Your task to perform on an android device: open app "Spotify" (install if not already installed) and go to login screen Image 0: 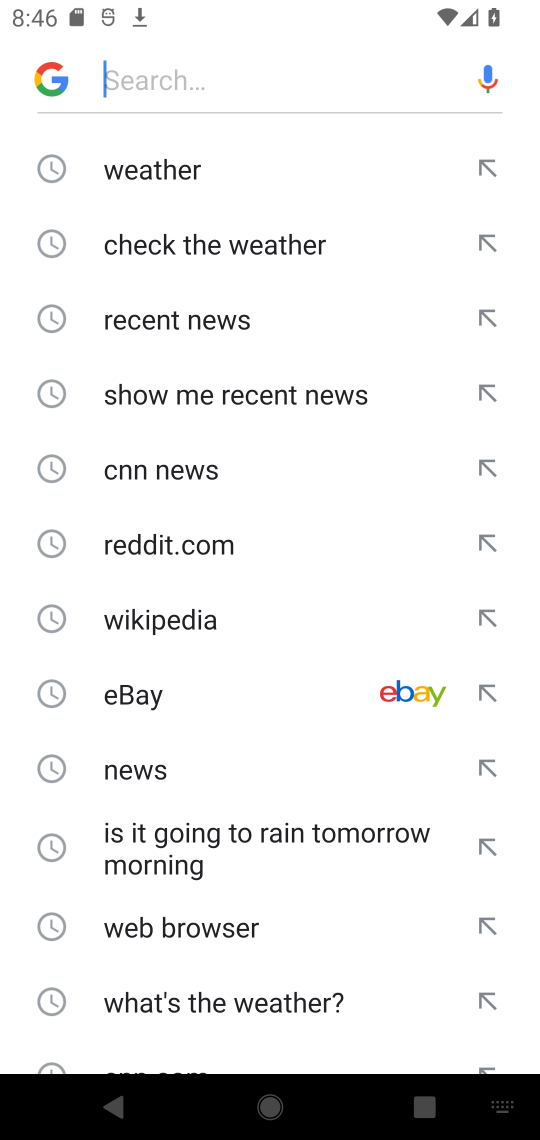
Step 0: press home button
Your task to perform on an android device: open app "Spotify" (install if not already installed) and go to login screen Image 1: 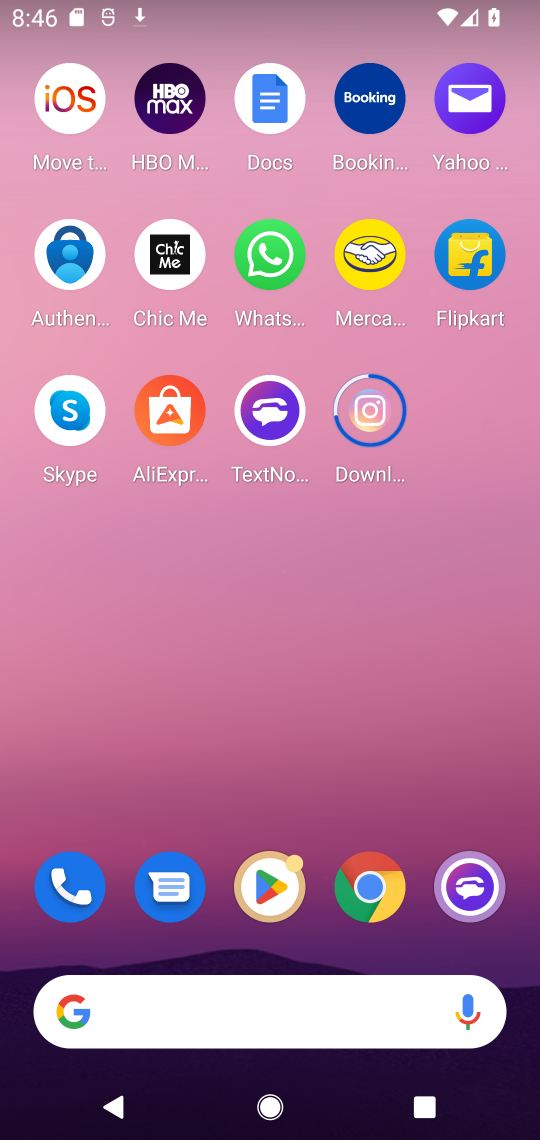
Step 1: drag from (312, 965) to (332, 53)
Your task to perform on an android device: open app "Spotify" (install if not already installed) and go to login screen Image 2: 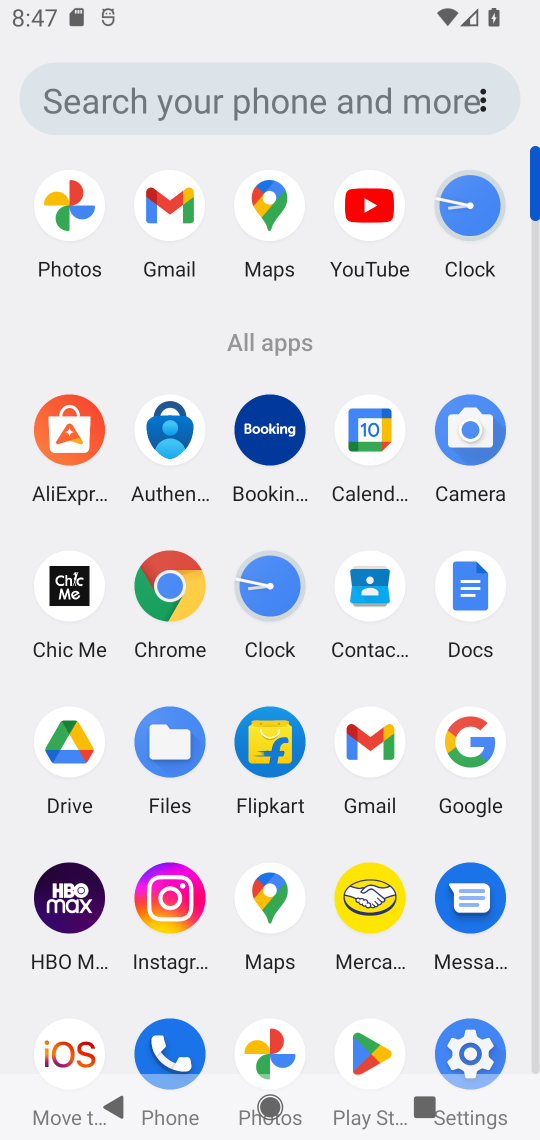
Step 2: click (347, 1057)
Your task to perform on an android device: open app "Spotify" (install if not already installed) and go to login screen Image 3: 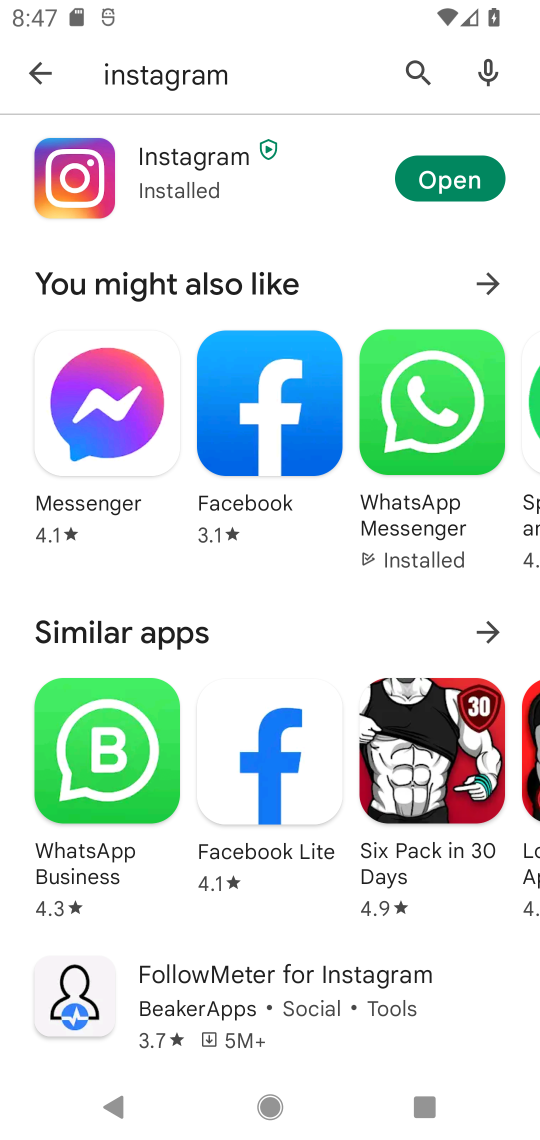
Step 3: click (404, 70)
Your task to perform on an android device: open app "Spotify" (install if not already installed) and go to login screen Image 4: 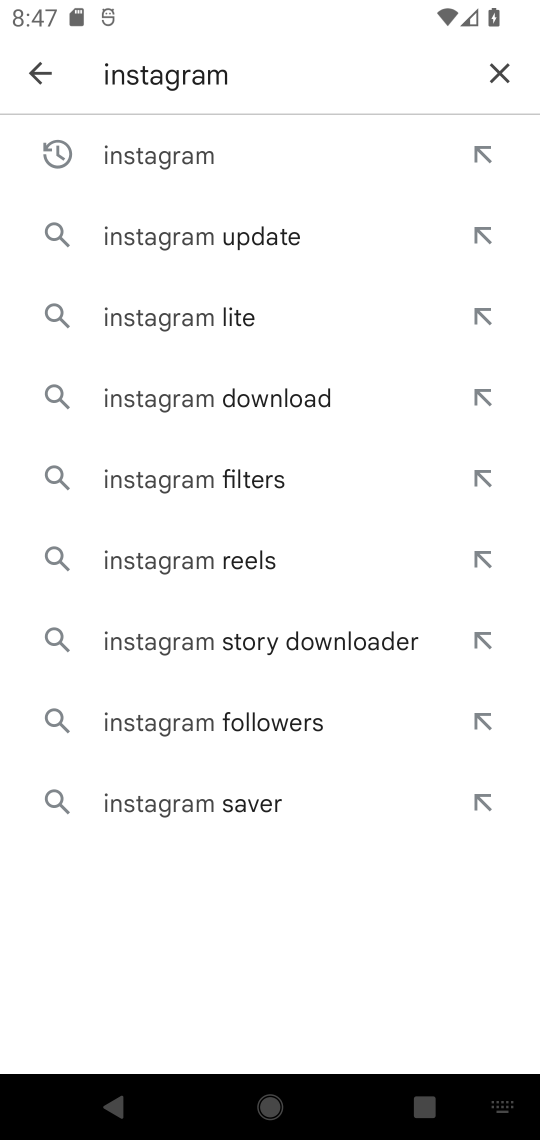
Step 4: click (513, 65)
Your task to perform on an android device: open app "Spotify" (install if not already installed) and go to login screen Image 5: 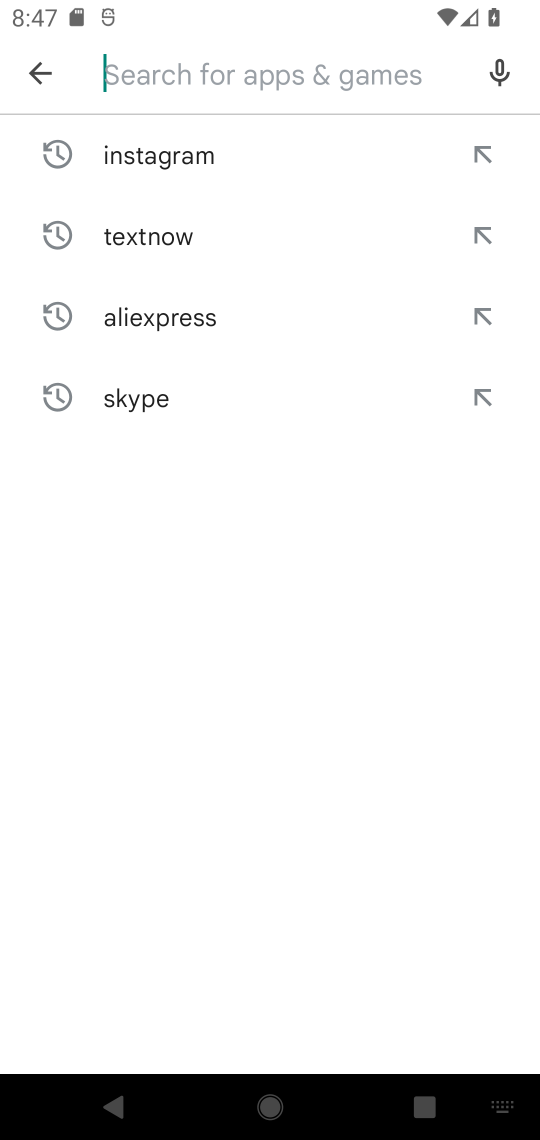
Step 5: type "spotify"
Your task to perform on an android device: open app "Spotify" (install if not already installed) and go to login screen Image 6: 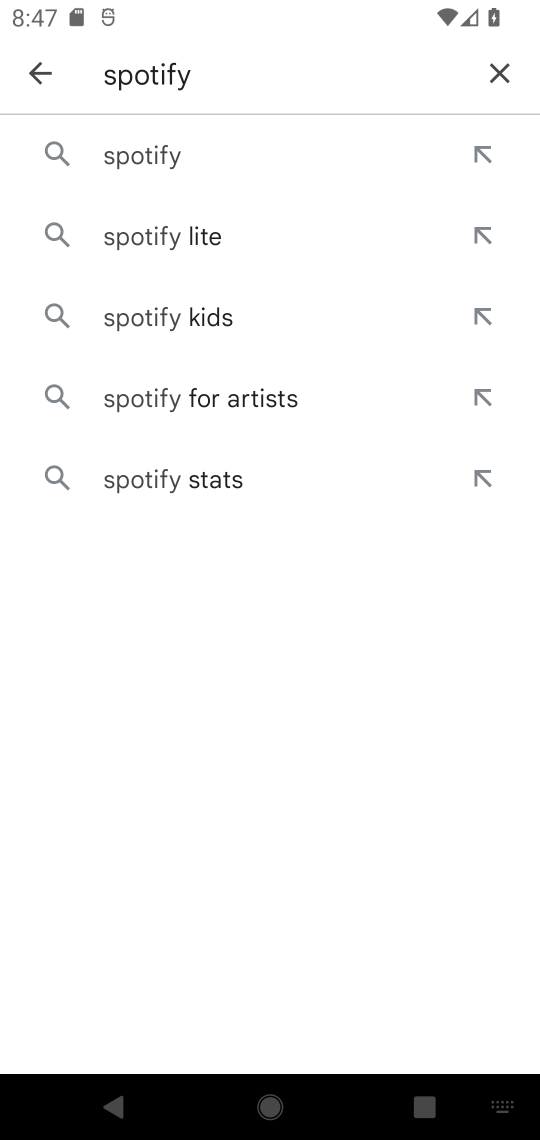
Step 6: click (282, 164)
Your task to perform on an android device: open app "Spotify" (install if not already installed) and go to login screen Image 7: 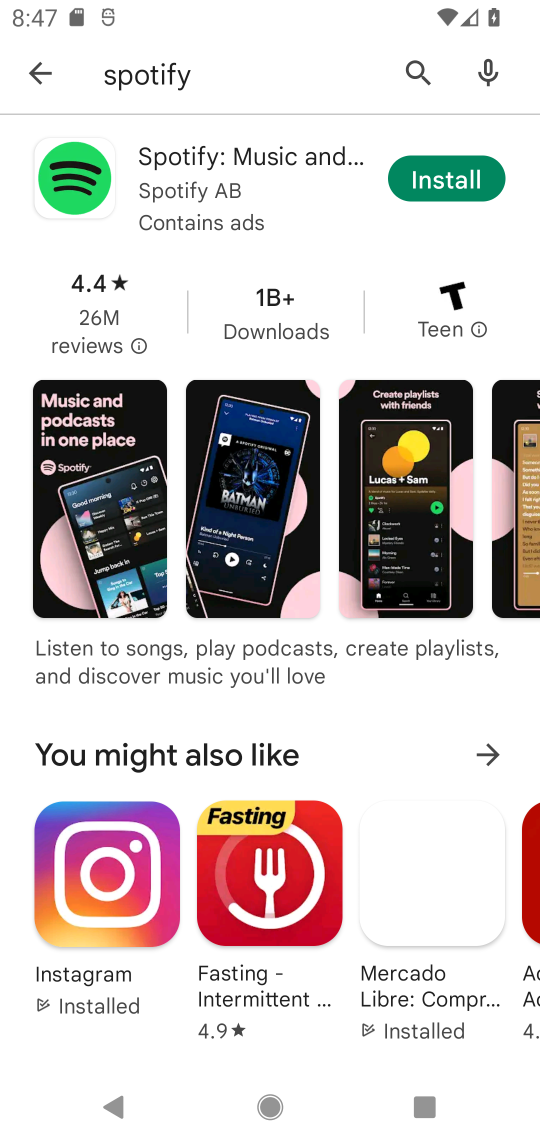
Step 7: click (445, 169)
Your task to perform on an android device: open app "Spotify" (install if not already installed) and go to login screen Image 8: 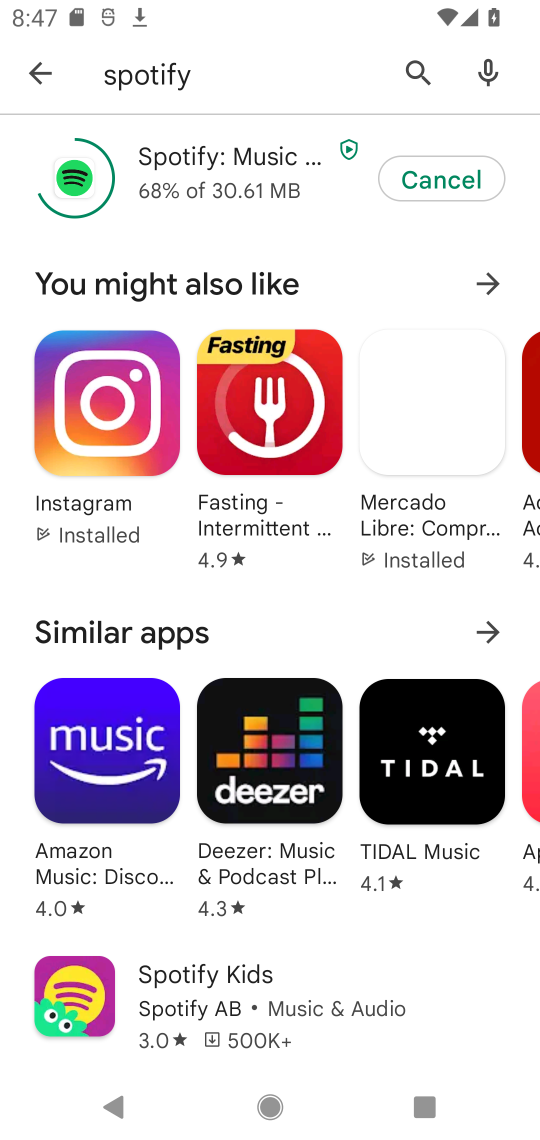
Step 8: task complete